Your task to perform on an android device: Go to ESPN.com Image 0: 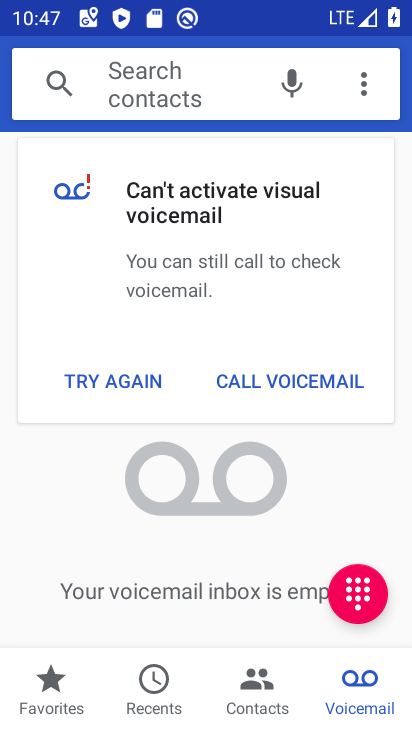
Step 0: press home button
Your task to perform on an android device: Go to ESPN.com Image 1: 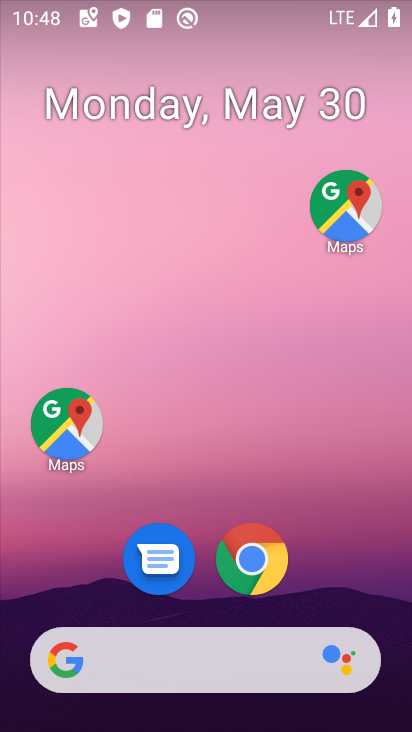
Step 1: click (263, 562)
Your task to perform on an android device: Go to ESPN.com Image 2: 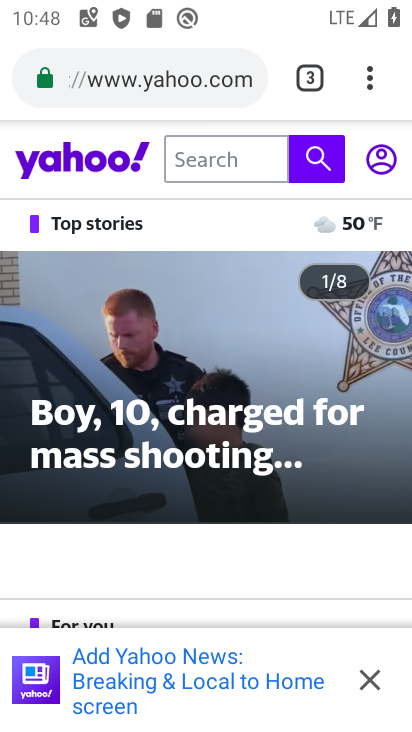
Step 2: click (237, 73)
Your task to perform on an android device: Go to ESPN.com Image 3: 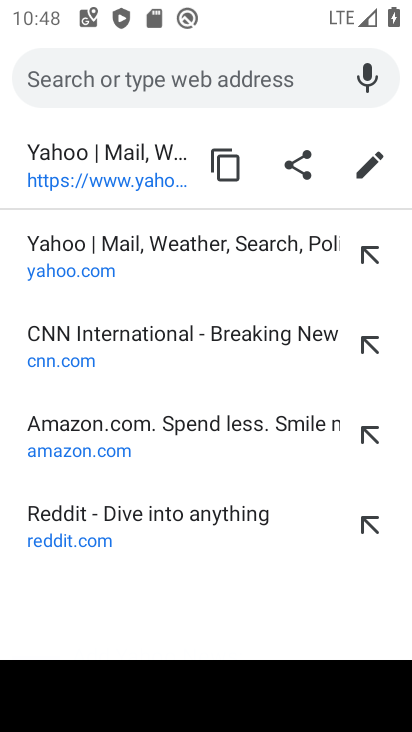
Step 3: type "espn.com"
Your task to perform on an android device: Go to ESPN.com Image 4: 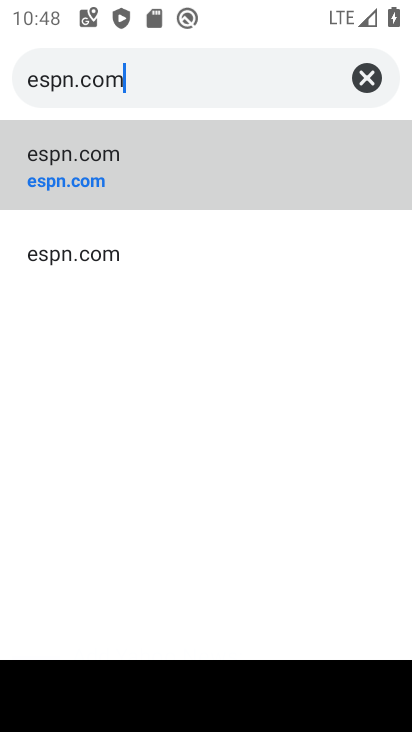
Step 4: click (77, 188)
Your task to perform on an android device: Go to ESPN.com Image 5: 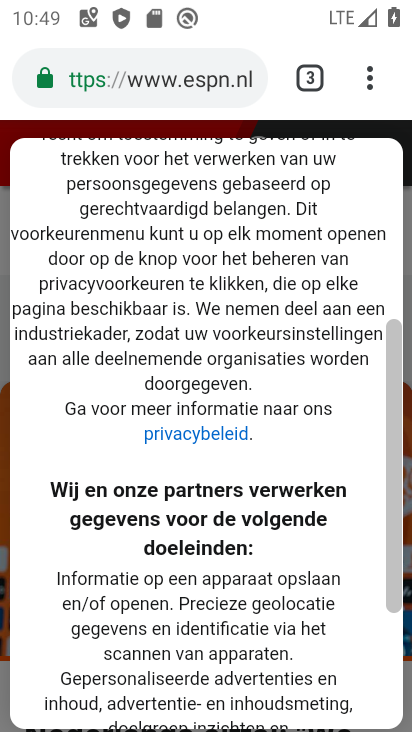
Step 5: task complete